Your task to perform on an android device: Open Chrome and go to settings Image 0: 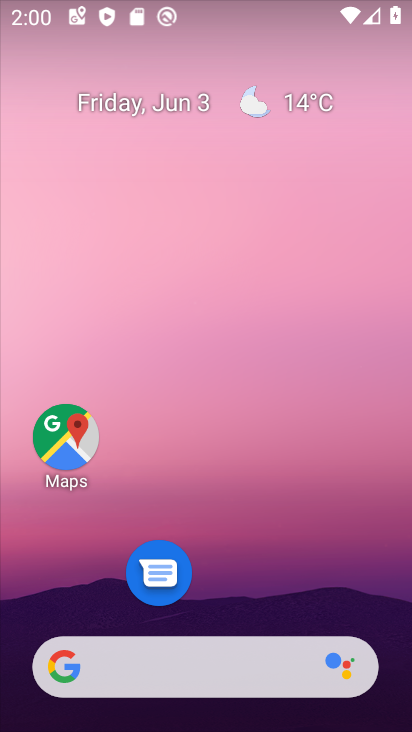
Step 0: drag from (268, 639) to (244, 10)
Your task to perform on an android device: Open Chrome and go to settings Image 1: 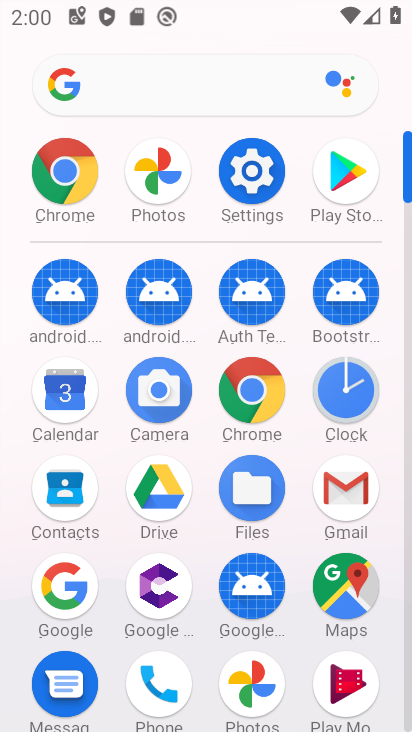
Step 1: click (253, 375)
Your task to perform on an android device: Open Chrome and go to settings Image 2: 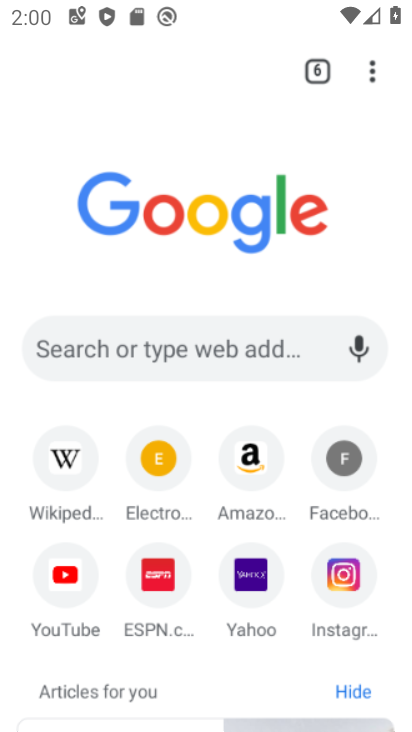
Step 2: task complete